Your task to perform on an android device: What's on my calendar tomorrow? Image 0: 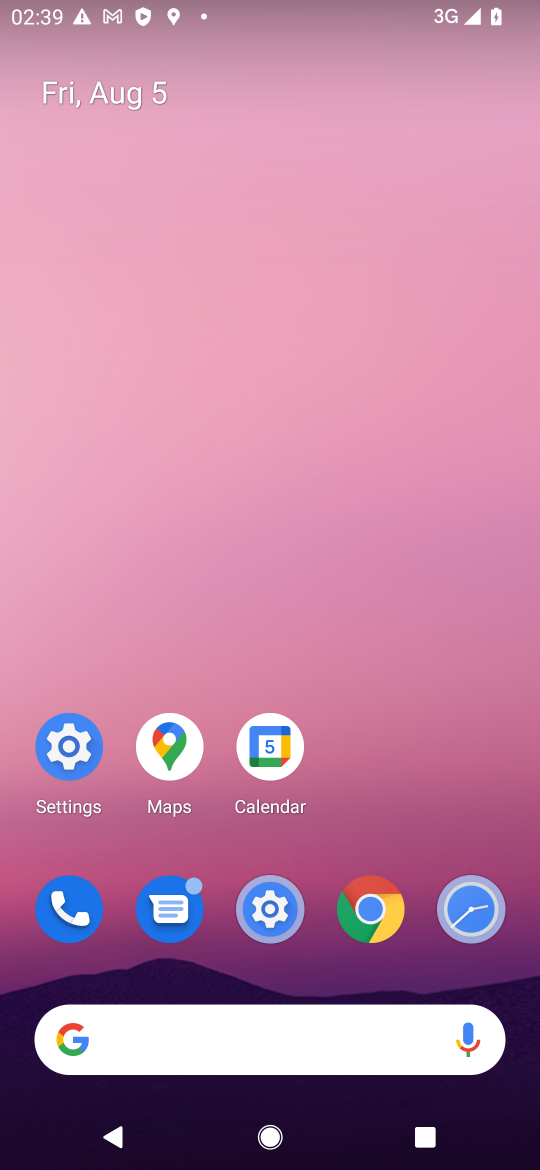
Step 0: click (275, 747)
Your task to perform on an android device: What's on my calendar tomorrow? Image 1: 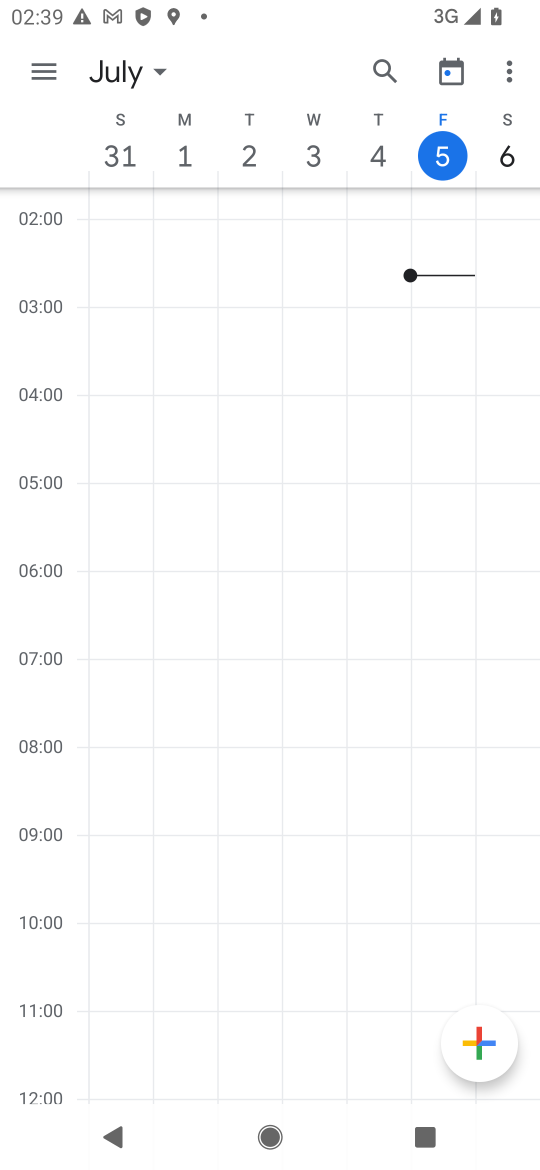
Step 1: click (509, 167)
Your task to perform on an android device: What's on my calendar tomorrow? Image 2: 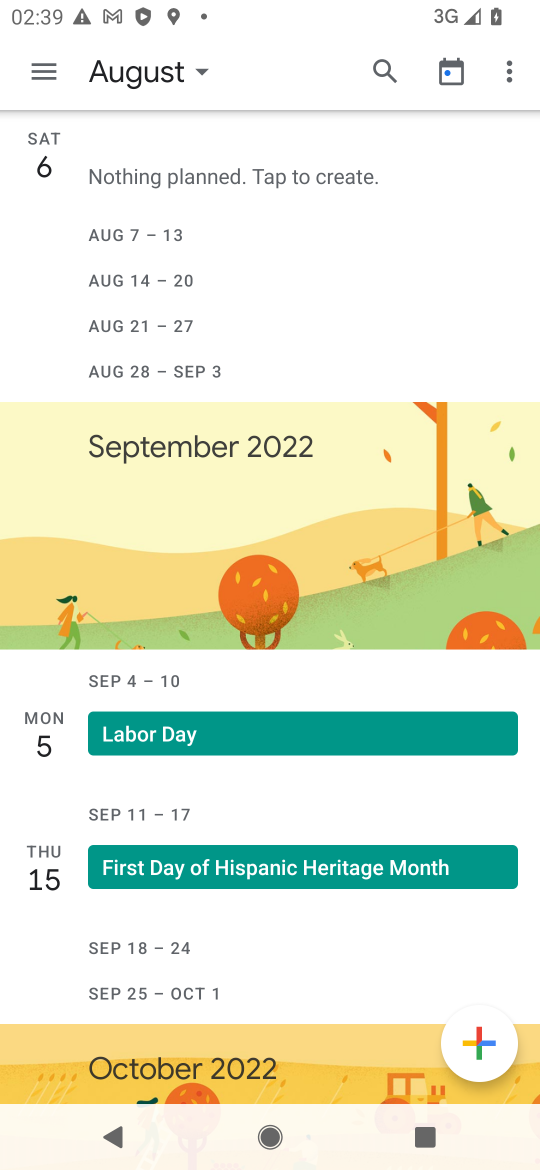
Step 2: click (38, 81)
Your task to perform on an android device: What's on my calendar tomorrow? Image 3: 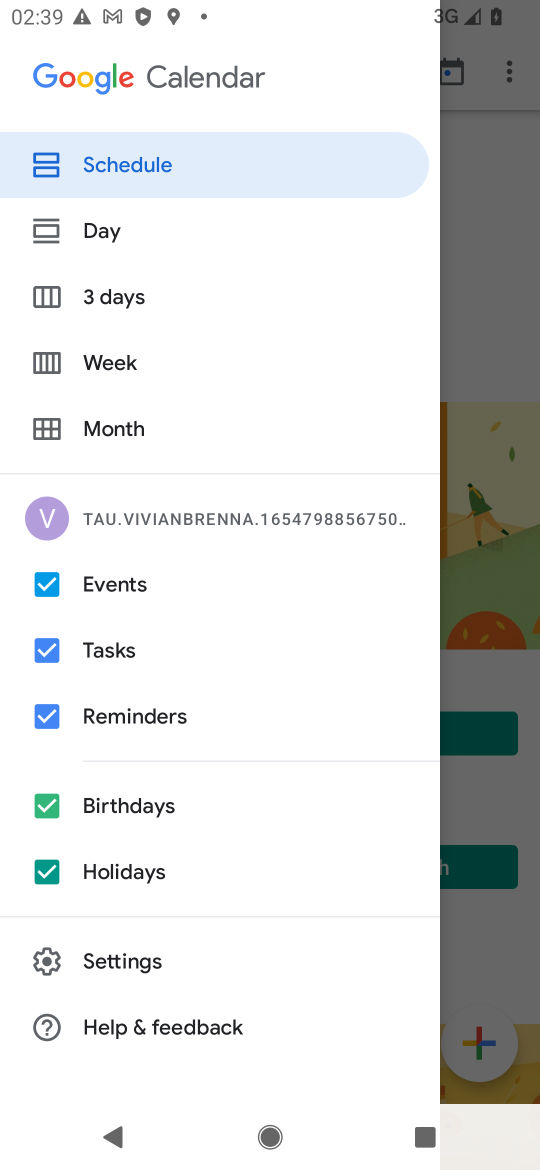
Step 3: click (91, 225)
Your task to perform on an android device: What's on my calendar tomorrow? Image 4: 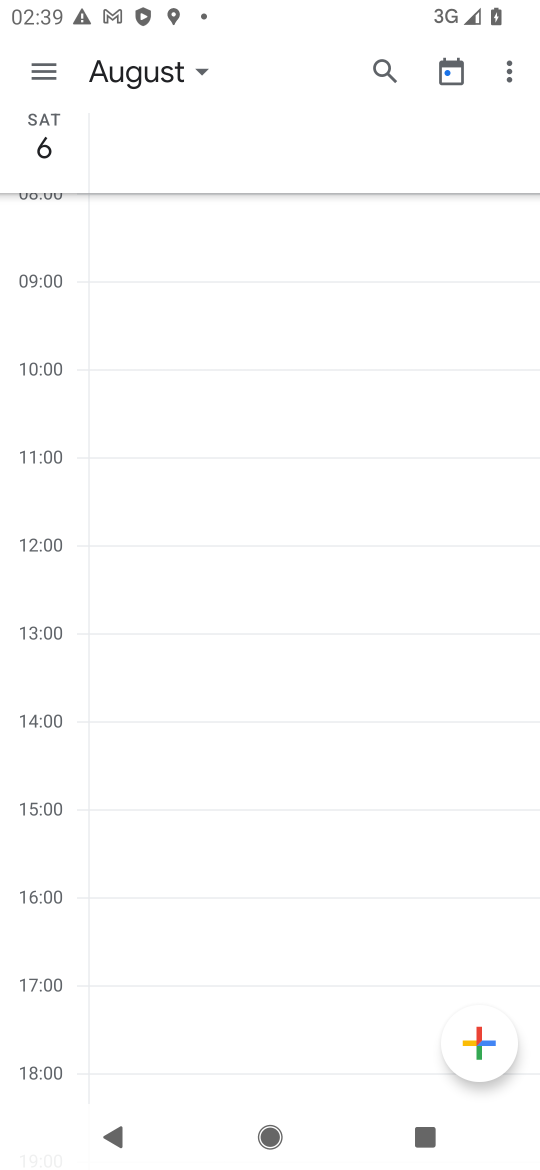
Step 4: task complete